Your task to perform on an android device: Open sound settings Image 0: 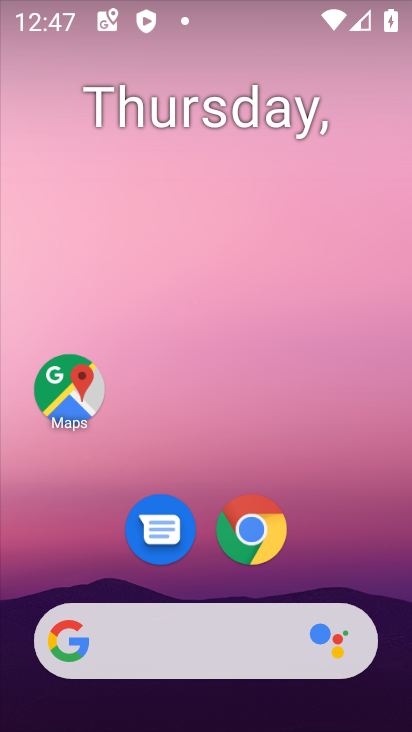
Step 0: drag from (234, 714) to (236, 129)
Your task to perform on an android device: Open sound settings Image 1: 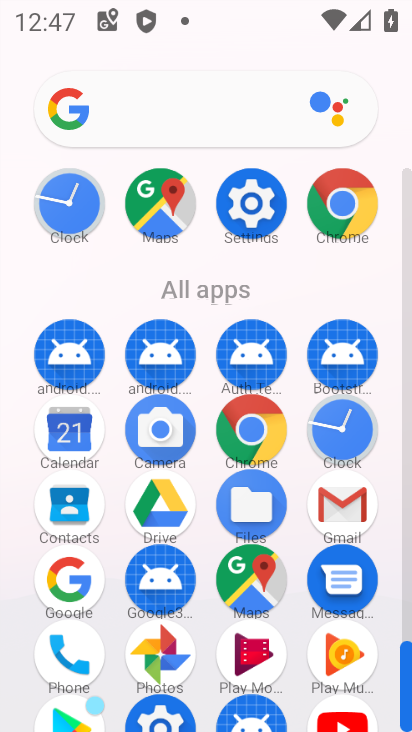
Step 1: click (259, 208)
Your task to perform on an android device: Open sound settings Image 2: 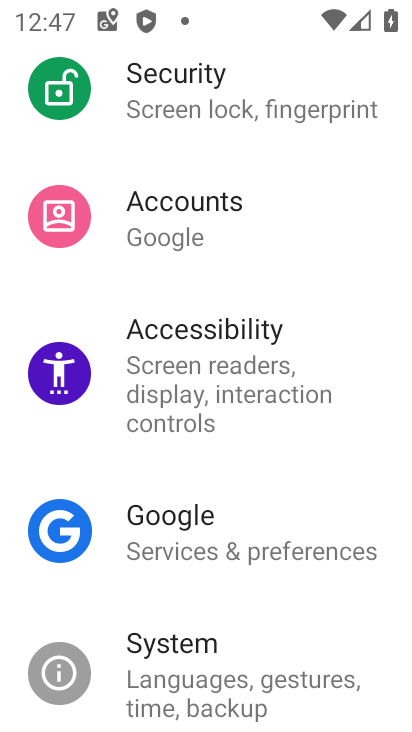
Step 2: drag from (282, 156) to (222, 578)
Your task to perform on an android device: Open sound settings Image 3: 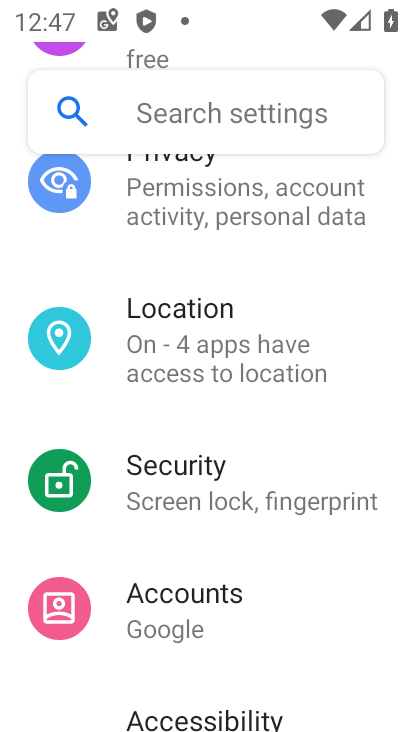
Step 3: drag from (203, 230) to (194, 544)
Your task to perform on an android device: Open sound settings Image 4: 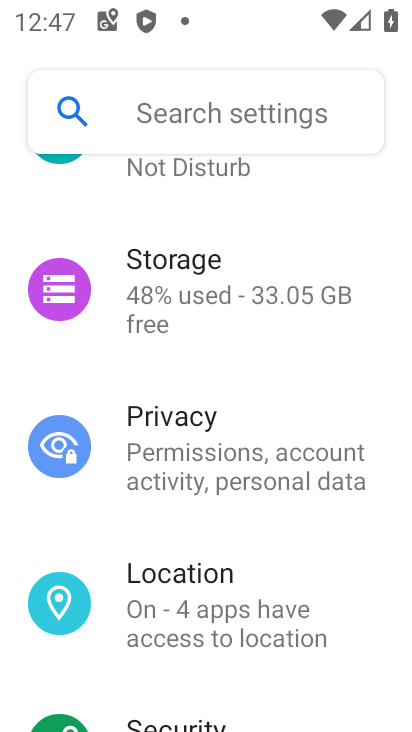
Step 4: drag from (184, 245) to (185, 526)
Your task to perform on an android device: Open sound settings Image 5: 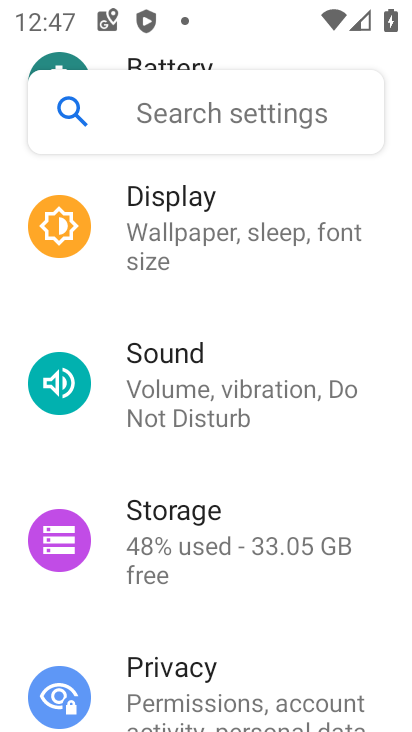
Step 5: click (164, 400)
Your task to perform on an android device: Open sound settings Image 6: 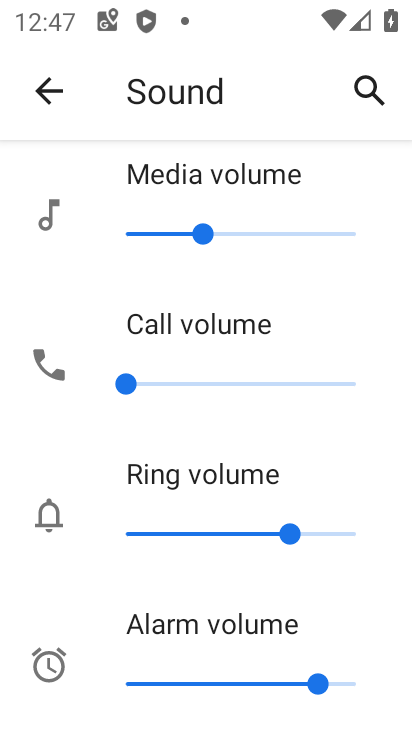
Step 6: task complete